Your task to perform on an android device: turn off location Image 0: 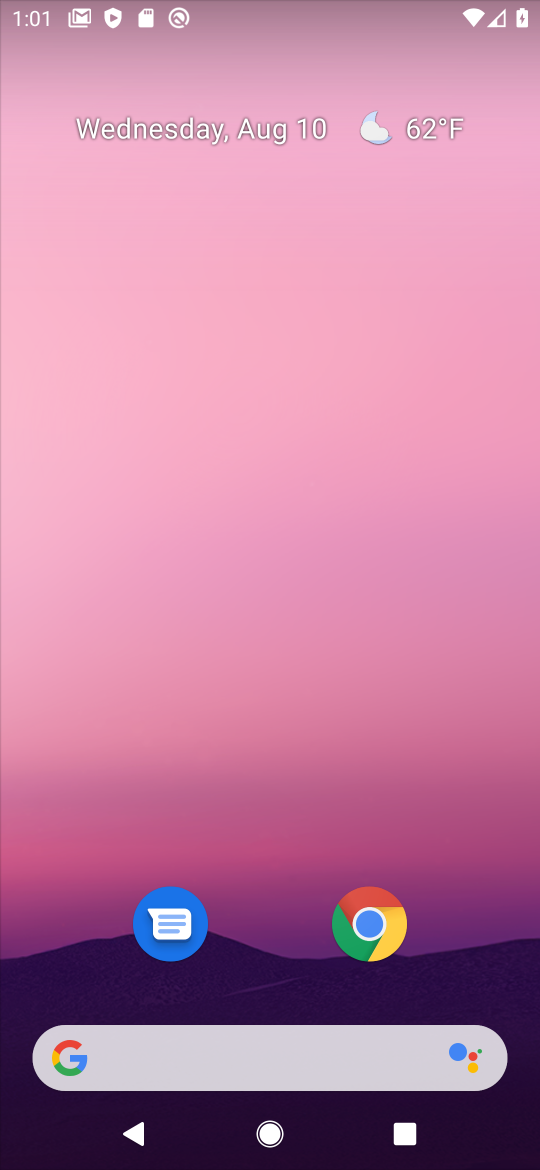
Step 0: drag from (270, 283) to (266, 188)
Your task to perform on an android device: turn off location Image 1: 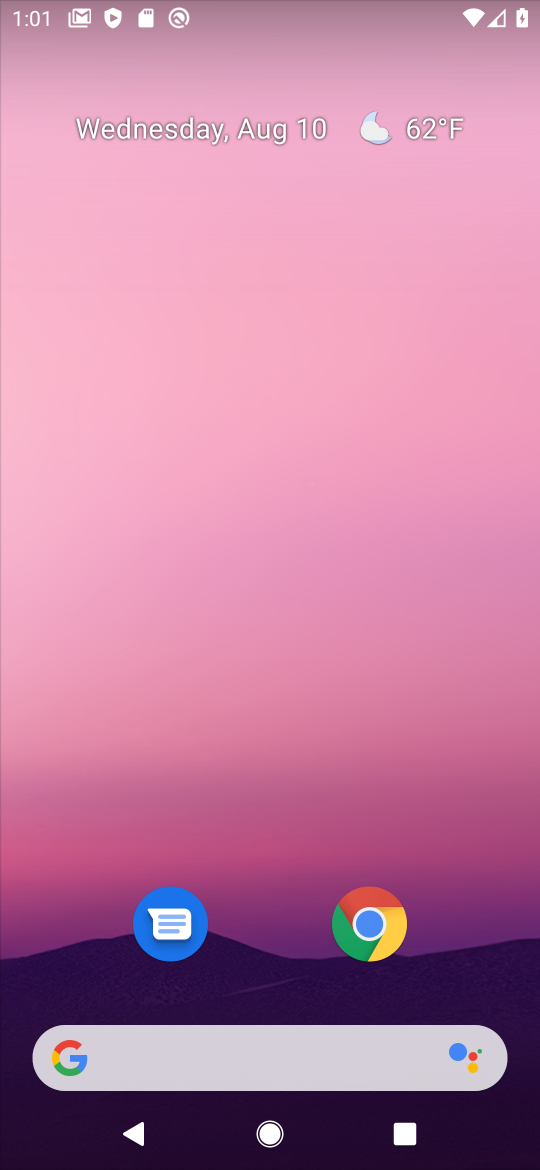
Step 1: drag from (287, 835) to (258, 50)
Your task to perform on an android device: turn off location Image 2: 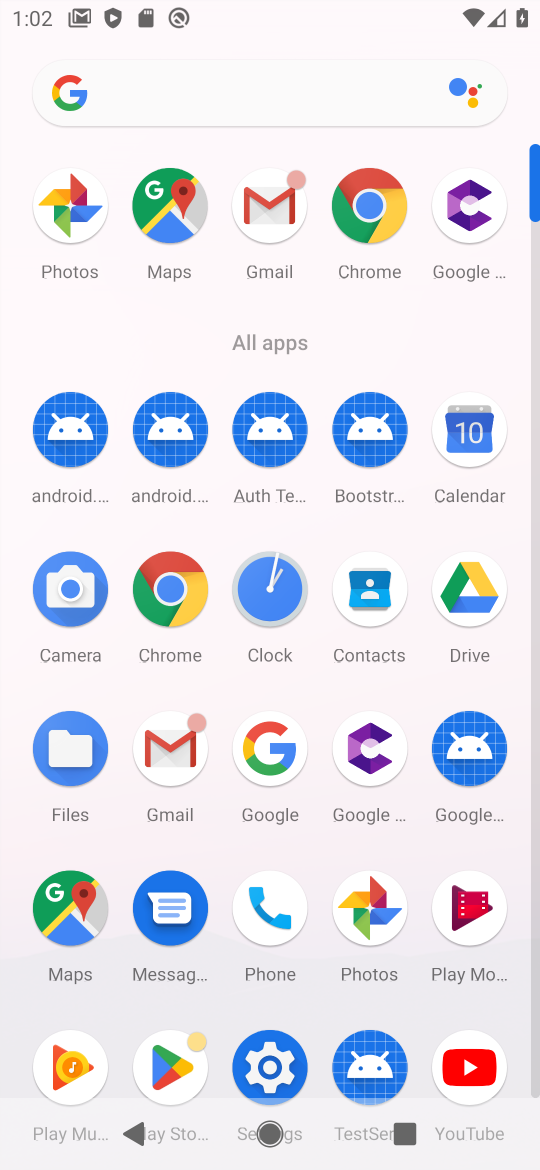
Step 2: click (270, 1055)
Your task to perform on an android device: turn off location Image 3: 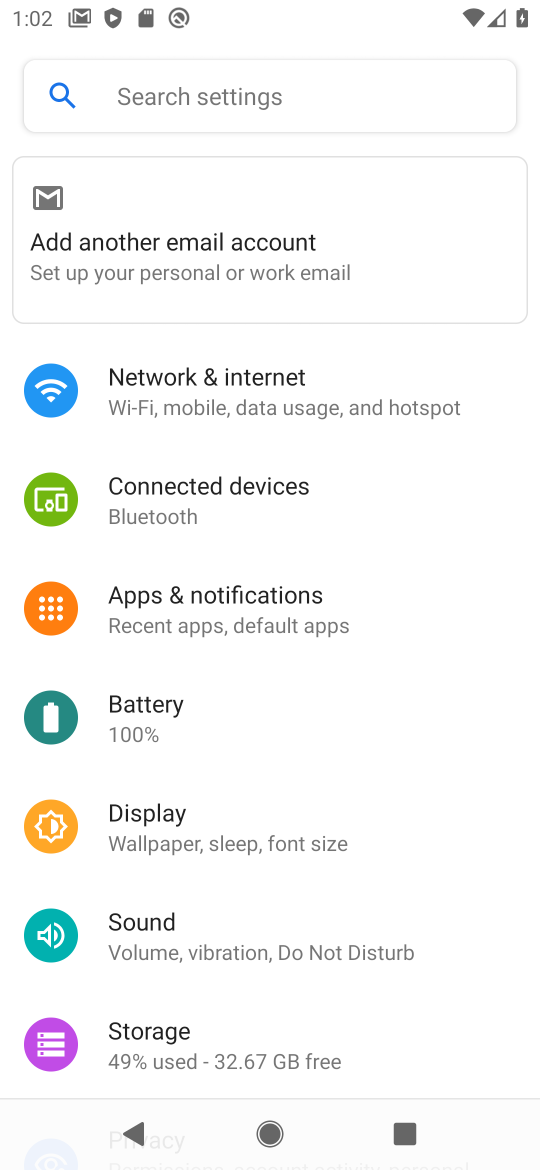
Step 3: task complete